Your task to perform on an android device: Add macbook pro 13 inch to the cart on walmart.com Image 0: 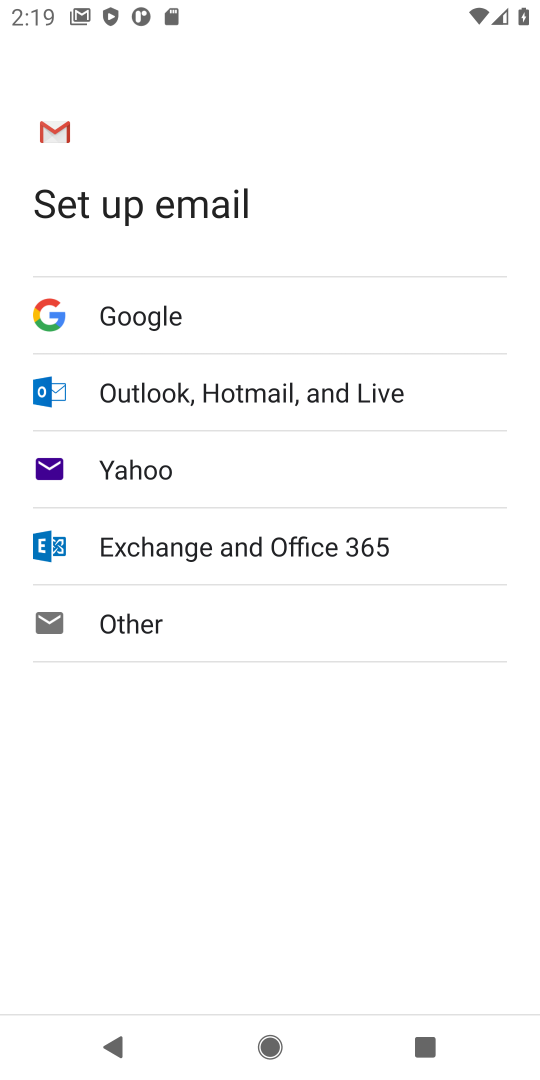
Step 0: press home button
Your task to perform on an android device: Add macbook pro 13 inch to the cart on walmart.com Image 1: 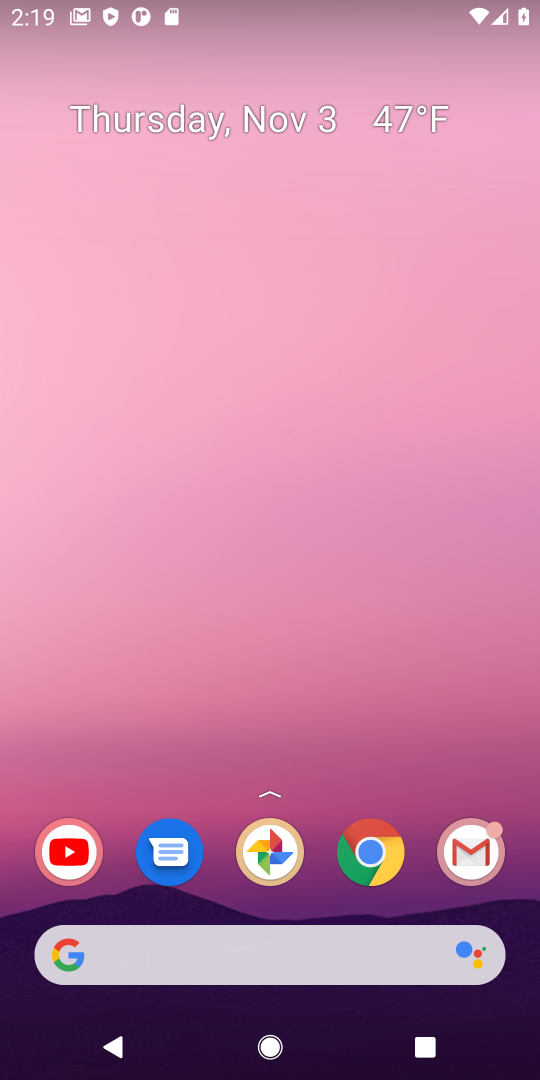
Step 1: click (372, 865)
Your task to perform on an android device: Add macbook pro 13 inch to the cart on walmart.com Image 2: 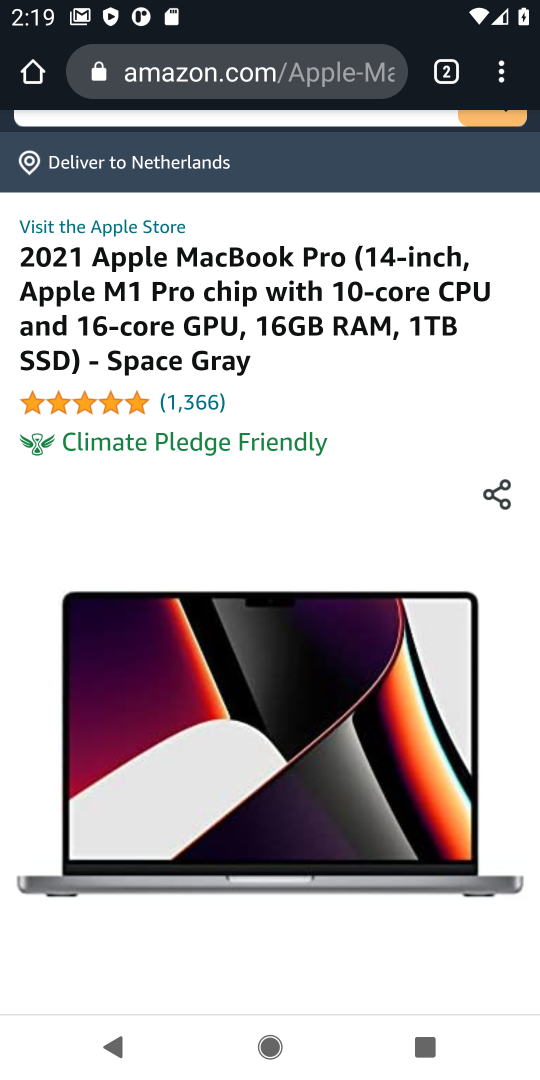
Step 2: click (285, 66)
Your task to perform on an android device: Add macbook pro 13 inch to the cart on walmart.com Image 3: 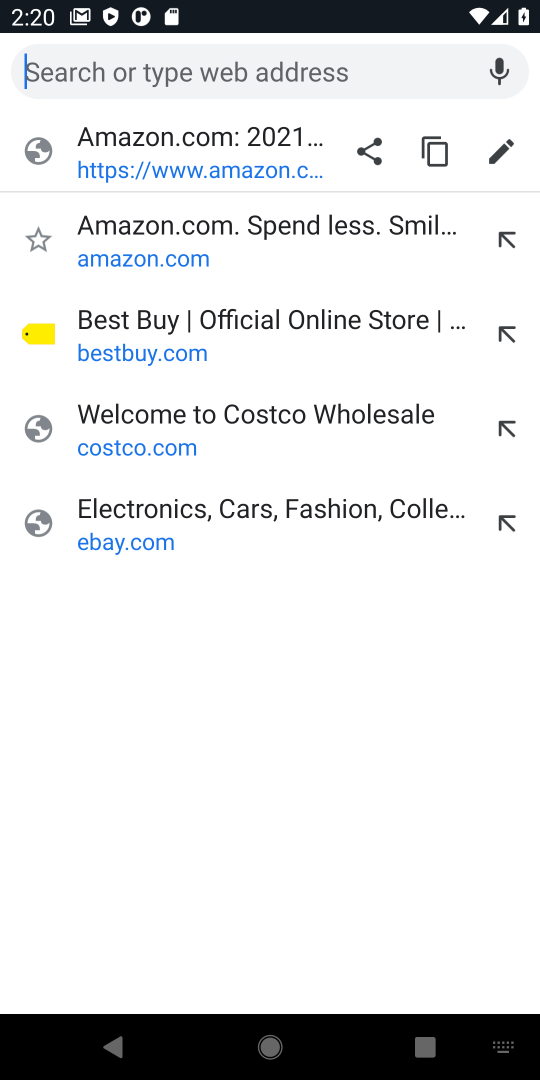
Step 3: type "walmart.com"
Your task to perform on an android device: Add macbook pro 13 inch to the cart on walmart.com Image 4: 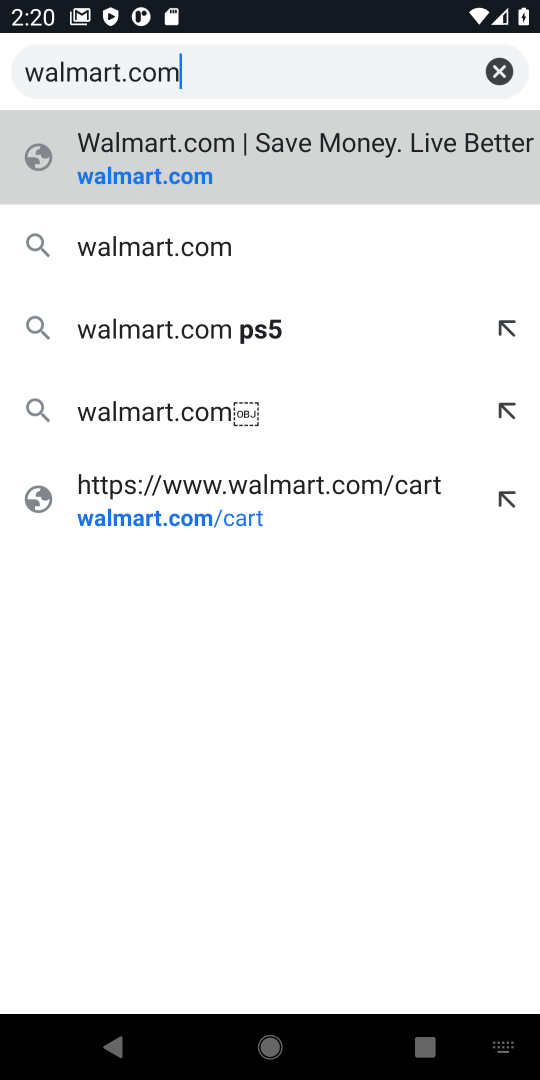
Step 4: click (196, 172)
Your task to perform on an android device: Add macbook pro 13 inch to the cart on walmart.com Image 5: 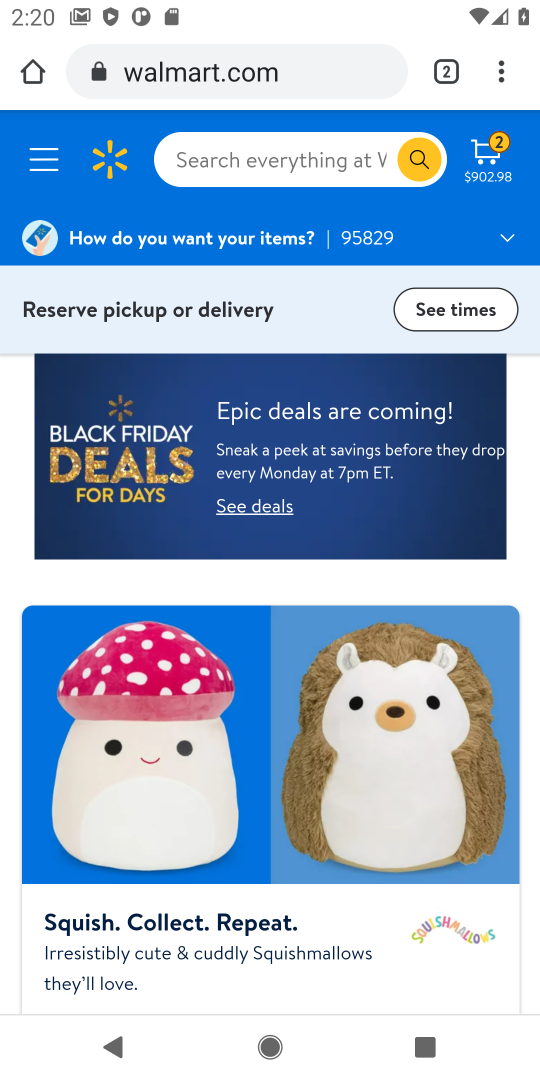
Step 5: click (235, 162)
Your task to perform on an android device: Add macbook pro 13 inch to the cart on walmart.com Image 6: 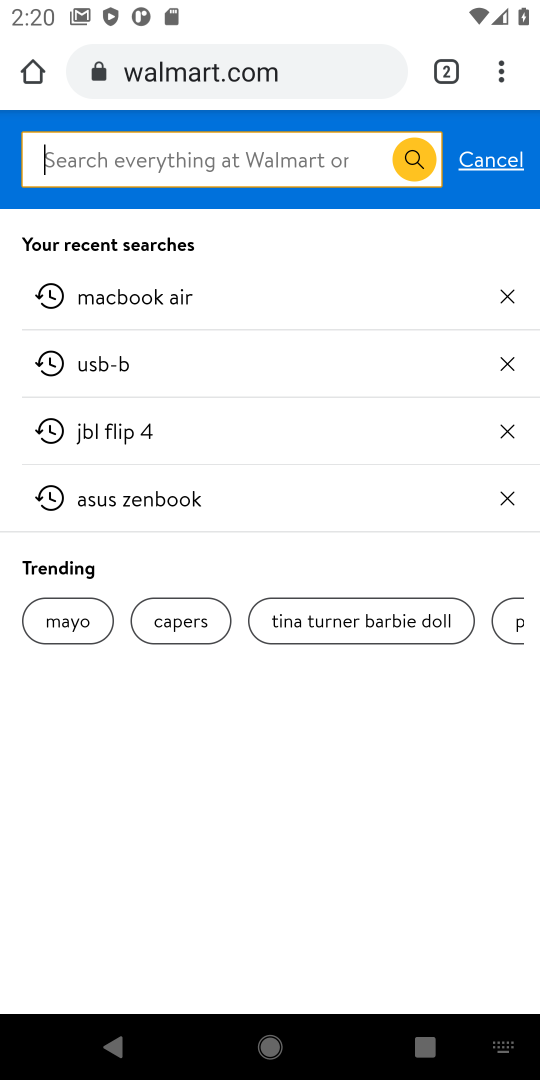
Step 6: type "macbook pro 13 inch "
Your task to perform on an android device: Add macbook pro 13 inch to the cart on walmart.com Image 7: 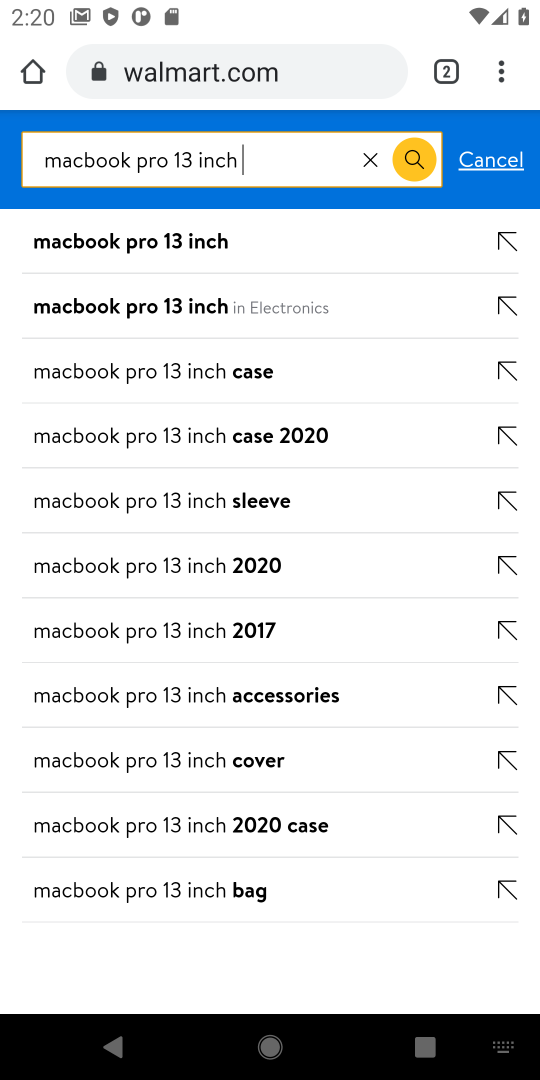
Step 7: click (133, 254)
Your task to perform on an android device: Add macbook pro 13 inch to the cart on walmart.com Image 8: 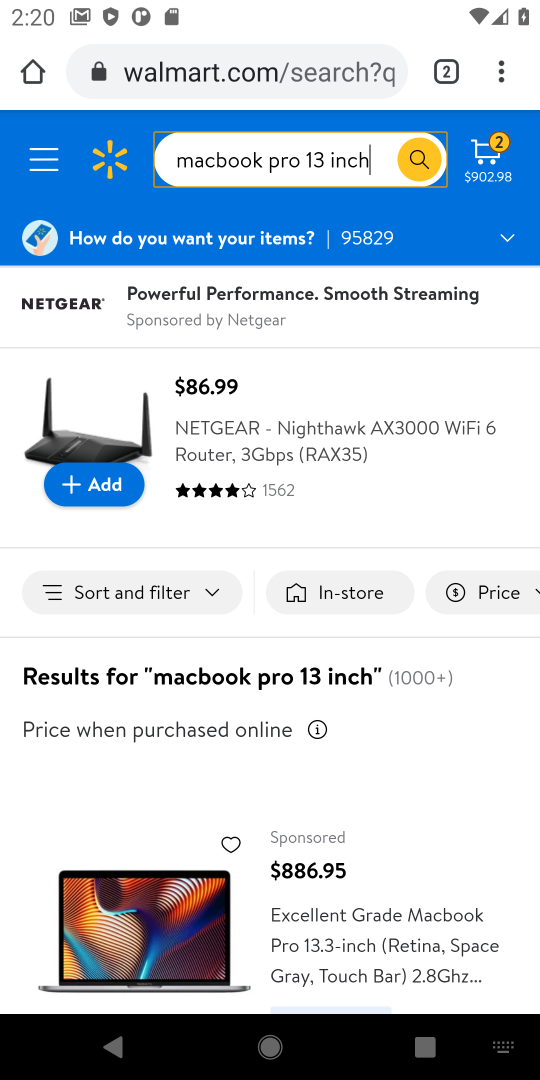
Step 8: drag from (212, 763) to (212, 411)
Your task to perform on an android device: Add macbook pro 13 inch to the cart on walmart.com Image 9: 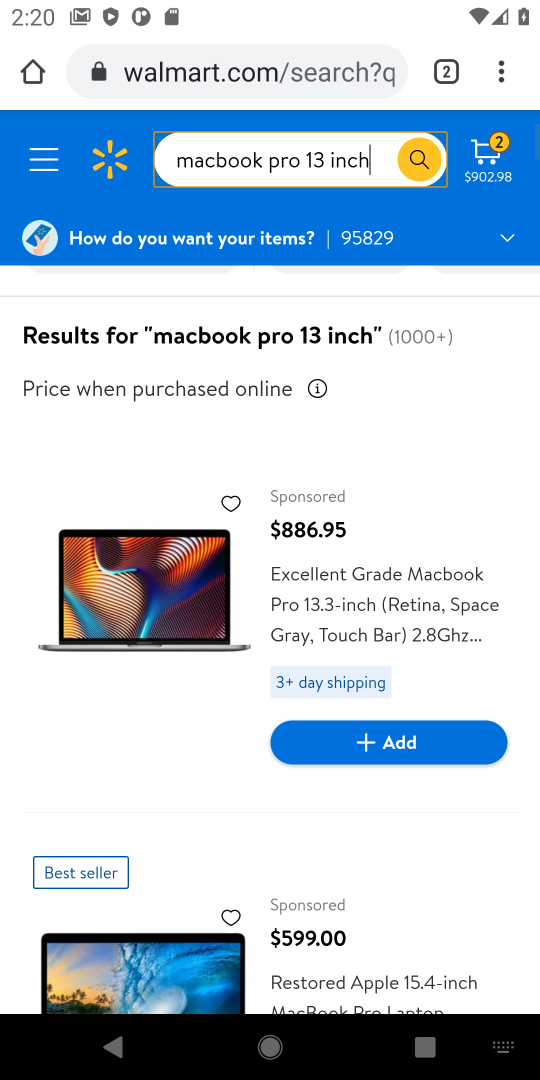
Step 9: drag from (212, 411) to (199, 1079)
Your task to perform on an android device: Add macbook pro 13 inch to the cart on walmart.com Image 10: 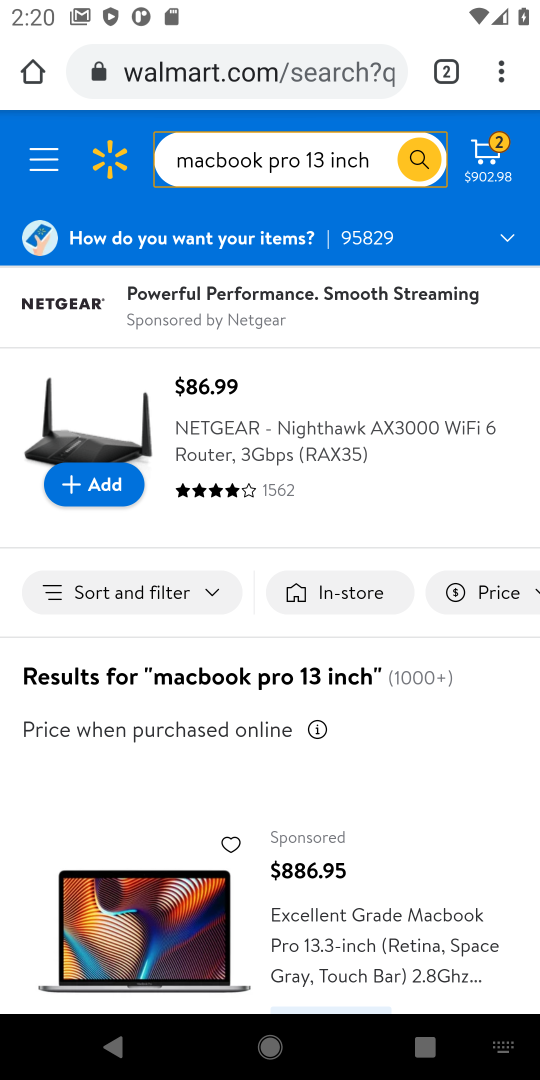
Step 10: drag from (220, 889) to (224, 694)
Your task to perform on an android device: Add macbook pro 13 inch to the cart on walmart.com Image 11: 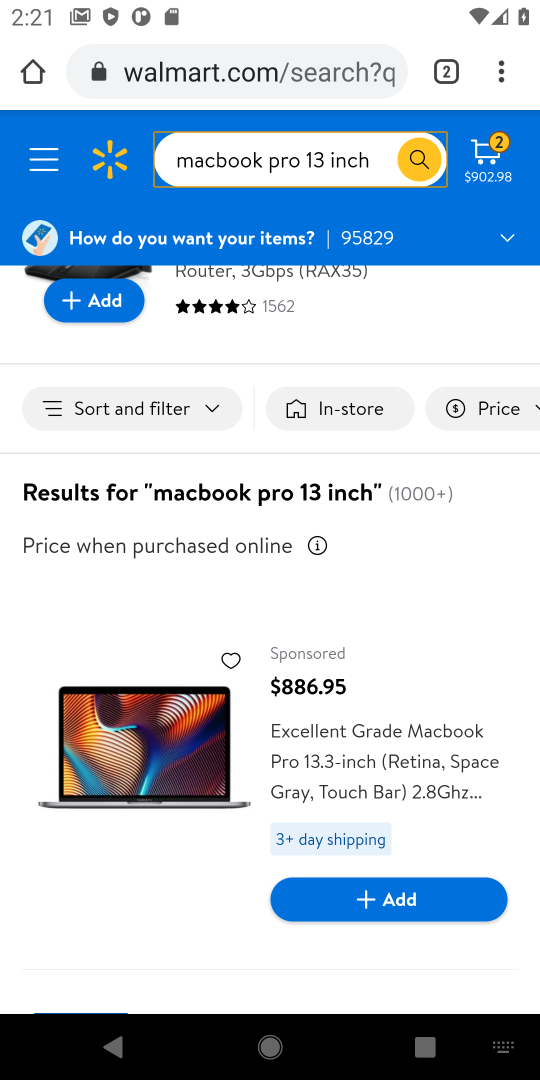
Step 11: drag from (173, 796) to (195, 573)
Your task to perform on an android device: Add macbook pro 13 inch to the cart on walmart.com Image 12: 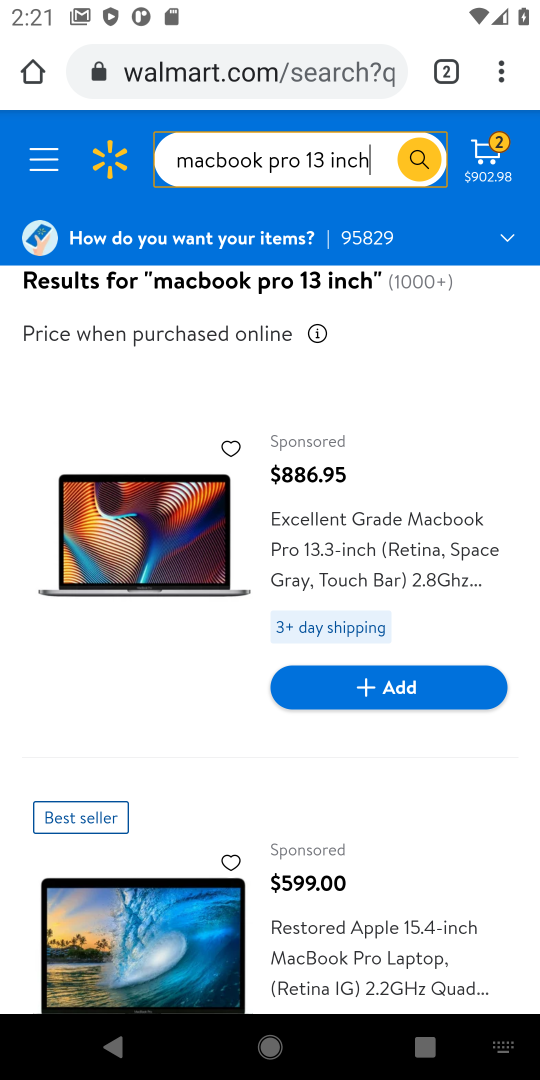
Step 12: drag from (162, 940) to (187, 522)
Your task to perform on an android device: Add macbook pro 13 inch to the cart on walmart.com Image 13: 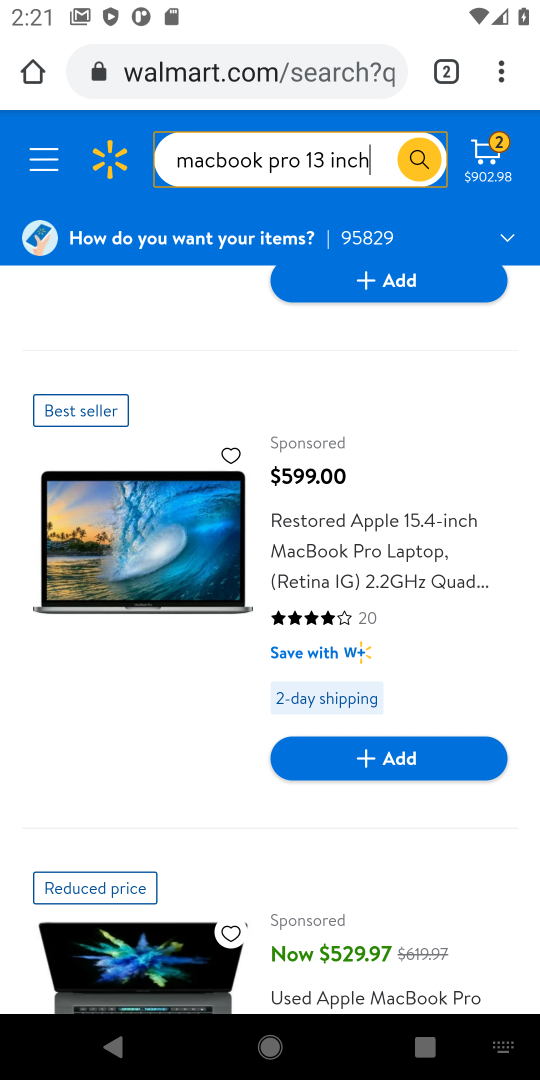
Step 13: drag from (136, 904) to (162, 547)
Your task to perform on an android device: Add macbook pro 13 inch to the cart on walmart.com Image 14: 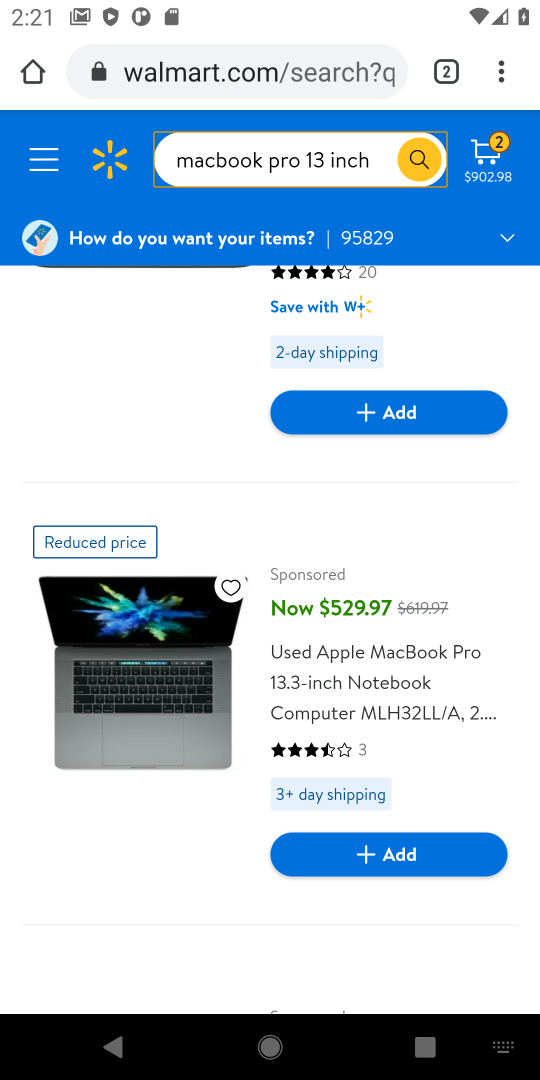
Step 14: drag from (119, 776) to (152, 476)
Your task to perform on an android device: Add macbook pro 13 inch to the cart on walmart.com Image 15: 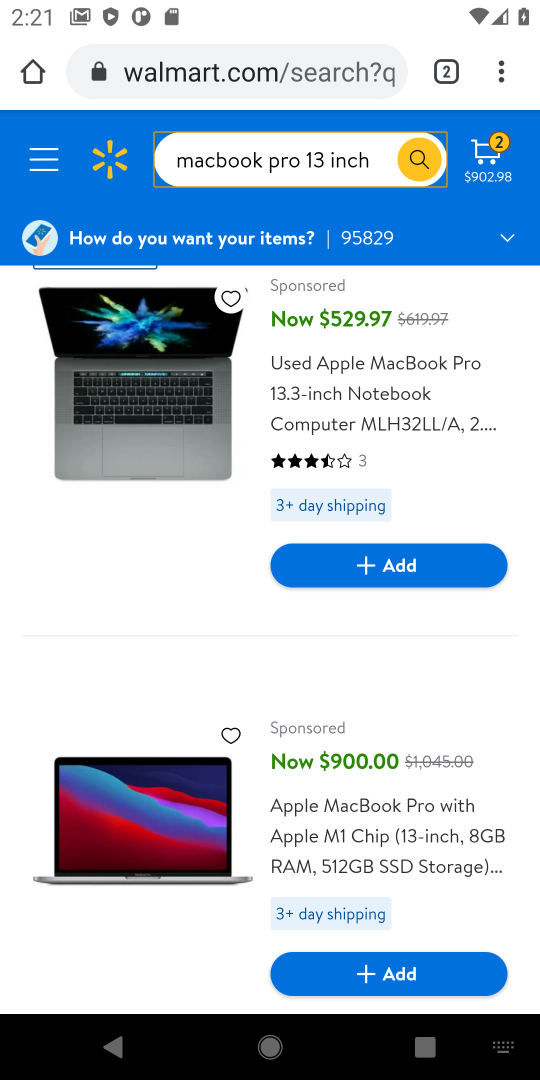
Step 15: click (367, 852)
Your task to perform on an android device: Add macbook pro 13 inch to the cart on walmart.com Image 16: 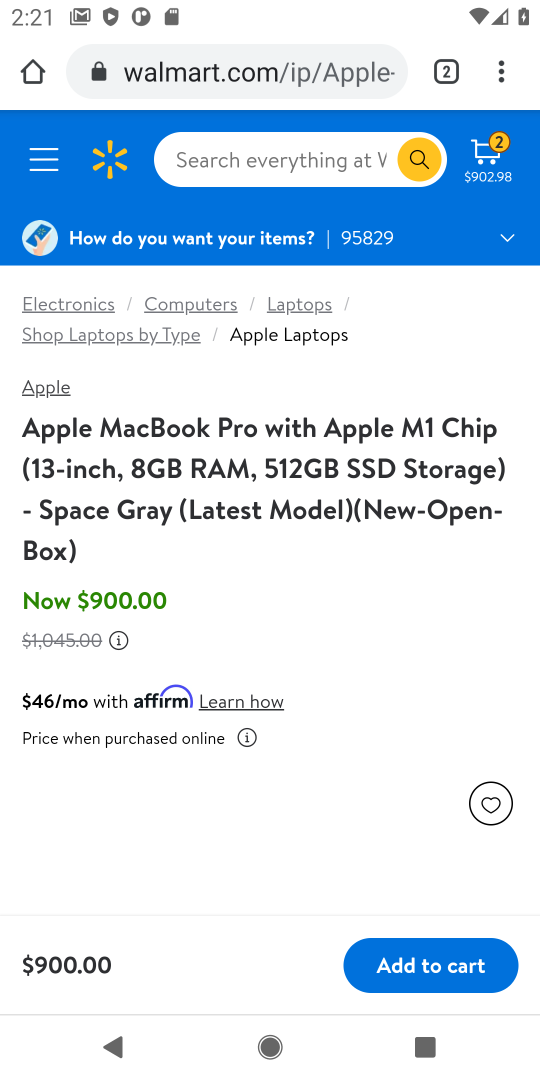
Step 16: click (416, 977)
Your task to perform on an android device: Add macbook pro 13 inch to the cart on walmart.com Image 17: 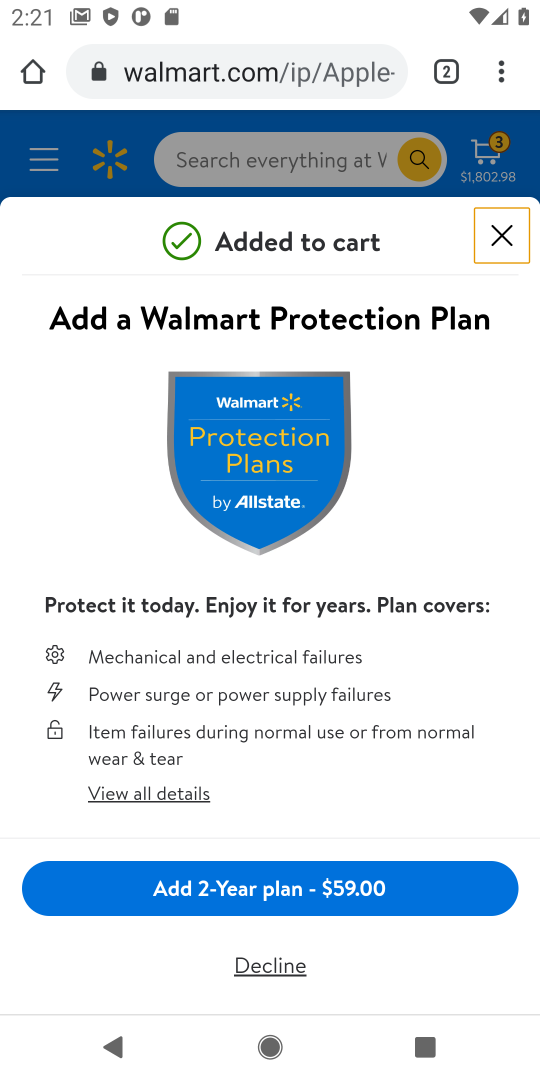
Step 17: task complete